Your task to perform on an android device: Open display settings Image 0: 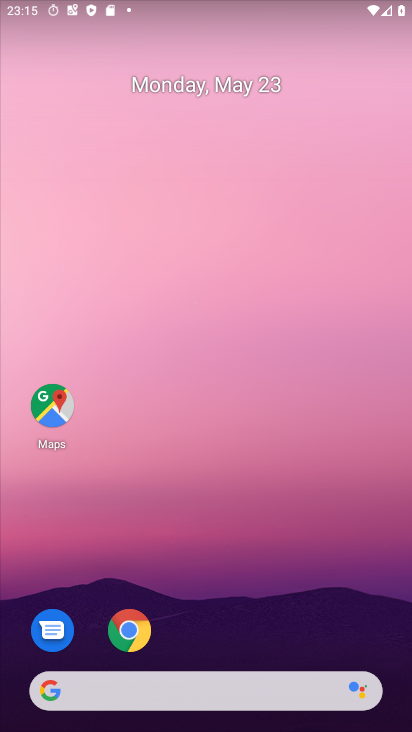
Step 0: drag from (261, 645) to (256, 6)
Your task to perform on an android device: Open display settings Image 1: 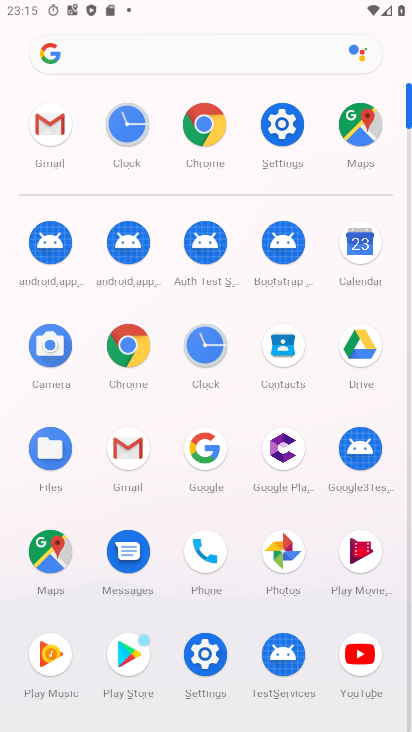
Step 1: click (282, 124)
Your task to perform on an android device: Open display settings Image 2: 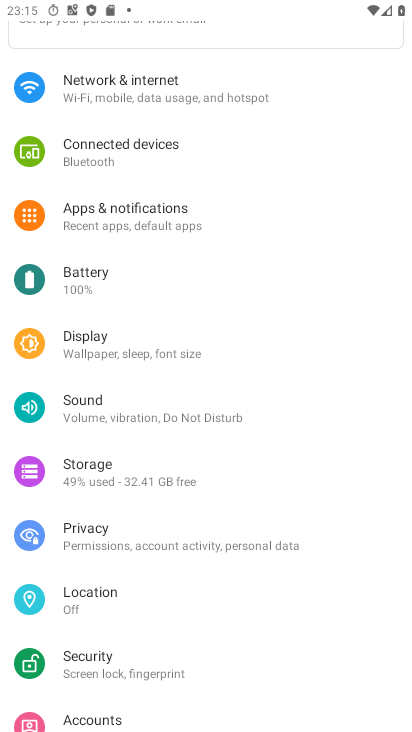
Step 2: click (86, 353)
Your task to perform on an android device: Open display settings Image 3: 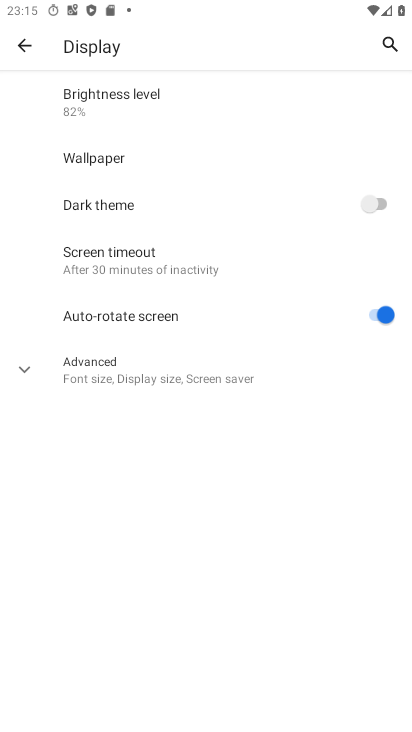
Step 3: task complete